Your task to perform on an android device: turn off translation in the chrome app Image 0: 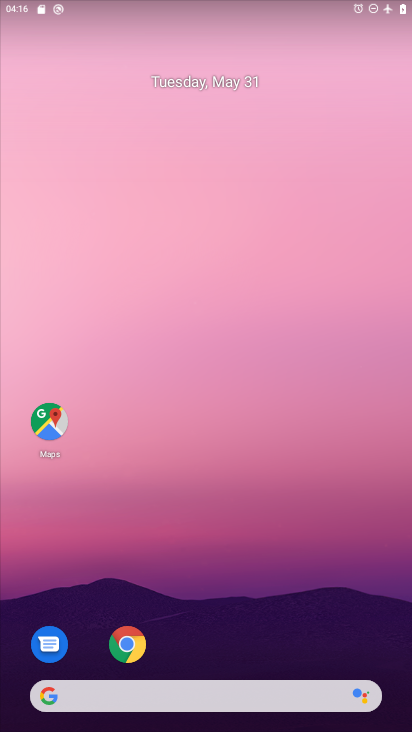
Step 0: click (129, 643)
Your task to perform on an android device: turn off translation in the chrome app Image 1: 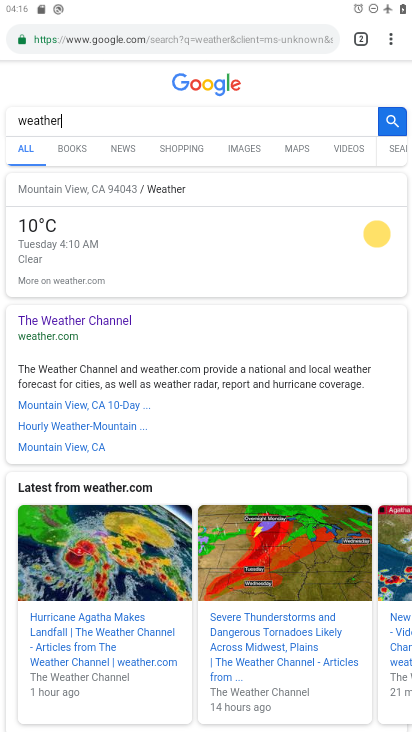
Step 1: click (398, 39)
Your task to perform on an android device: turn off translation in the chrome app Image 2: 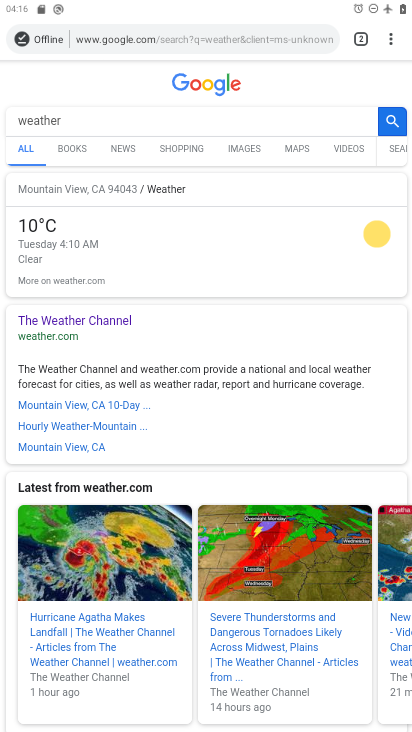
Step 2: drag from (392, 36) to (272, 445)
Your task to perform on an android device: turn off translation in the chrome app Image 3: 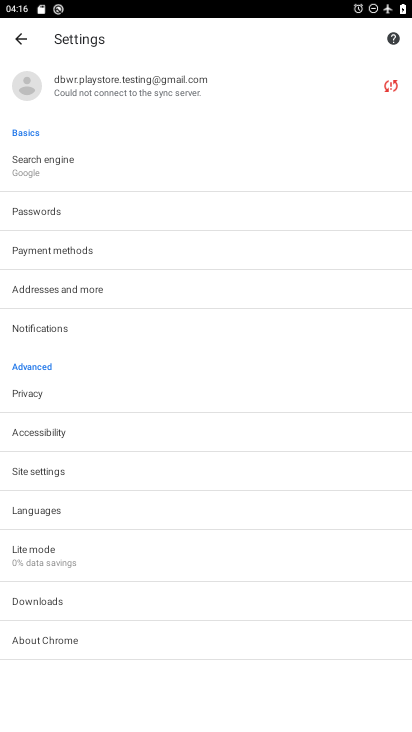
Step 3: click (53, 504)
Your task to perform on an android device: turn off translation in the chrome app Image 4: 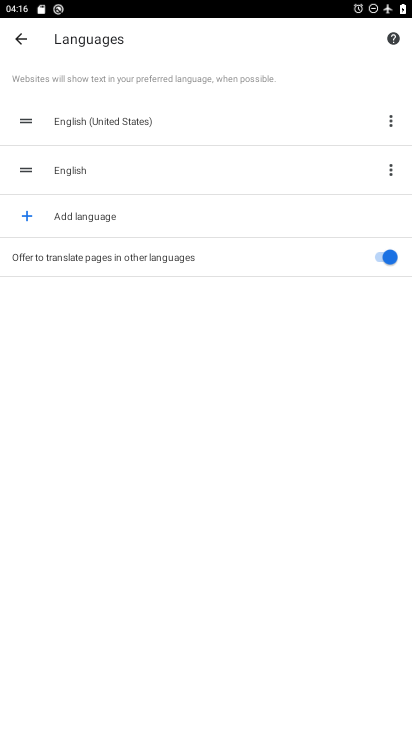
Step 4: click (390, 242)
Your task to perform on an android device: turn off translation in the chrome app Image 5: 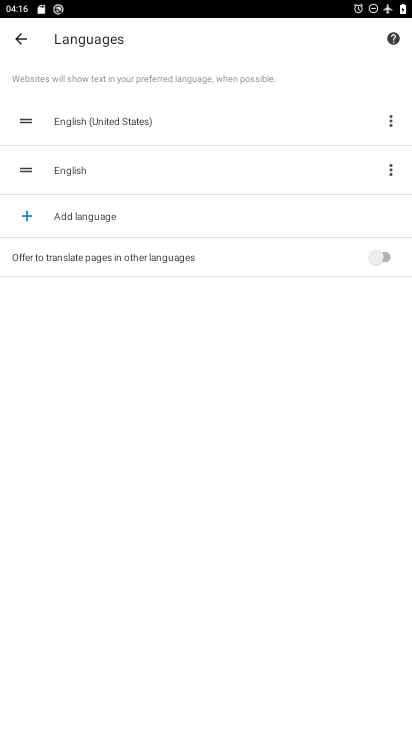
Step 5: task complete